Your task to perform on an android device: Is it going to rain today? Image 0: 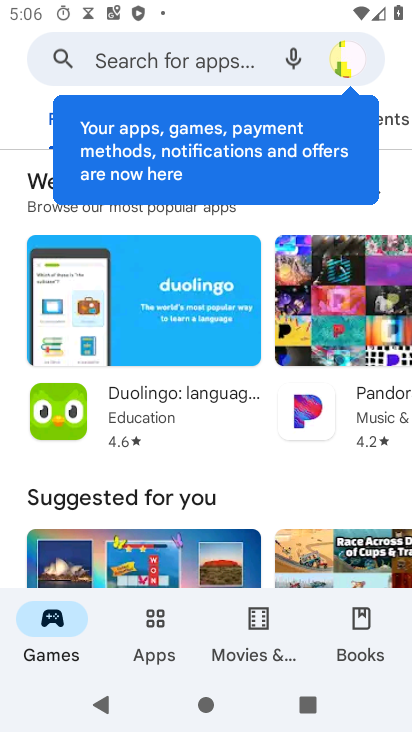
Step 0: press back button
Your task to perform on an android device: Is it going to rain today? Image 1: 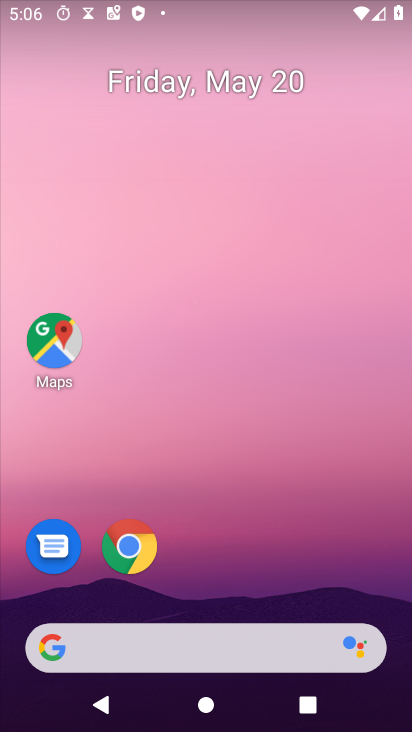
Step 1: drag from (235, 566) to (230, 89)
Your task to perform on an android device: Is it going to rain today? Image 2: 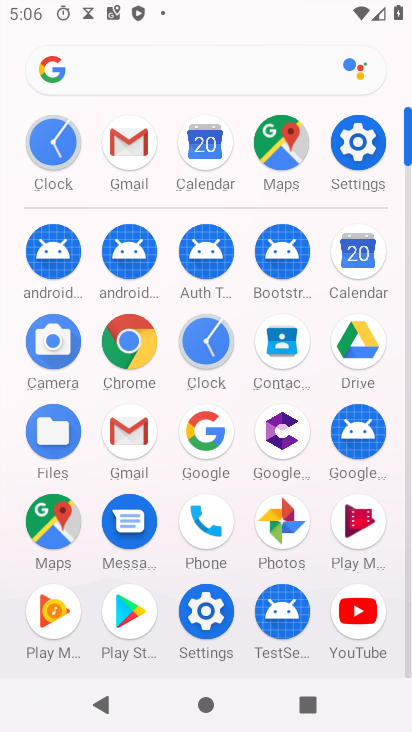
Step 2: click (199, 428)
Your task to perform on an android device: Is it going to rain today? Image 3: 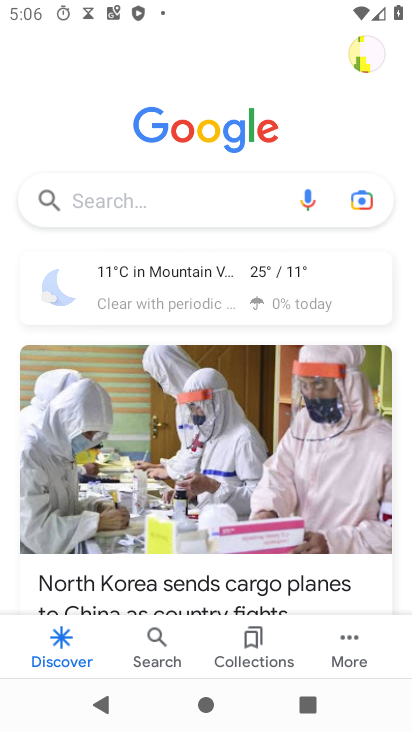
Step 3: click (137, 286)
Your task to perform on an android device: Is it going to rain today? Image 4: 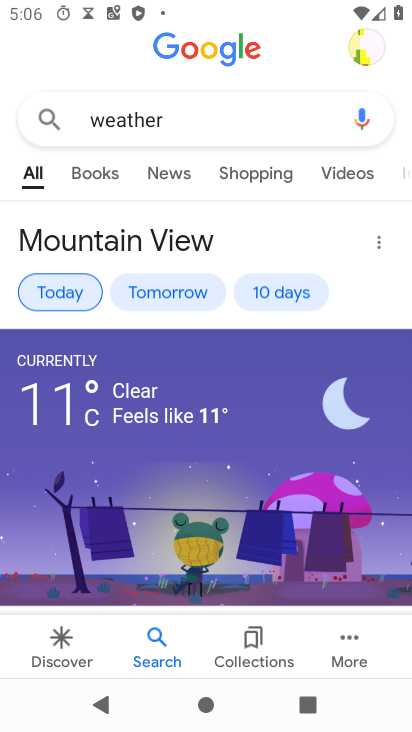
Step 4: task complete